Your task to perform on an android device: Open calendar and show me the first week of next month Image 0: 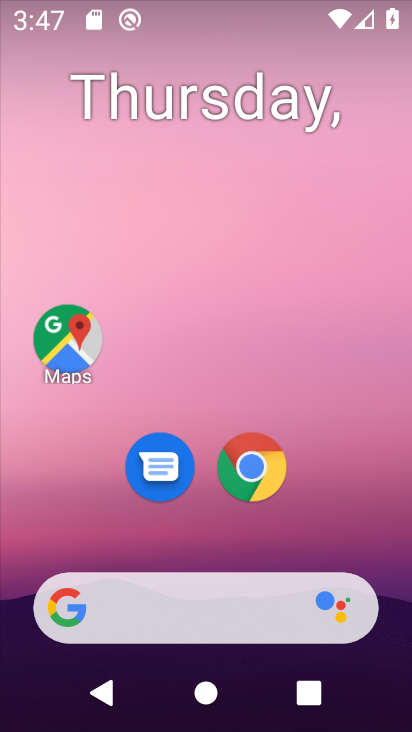
Step 0: drag from (276, 482) to (360, 81)
Your task to perform on an android device: Open calendar and show me the first week of next month Image 1: 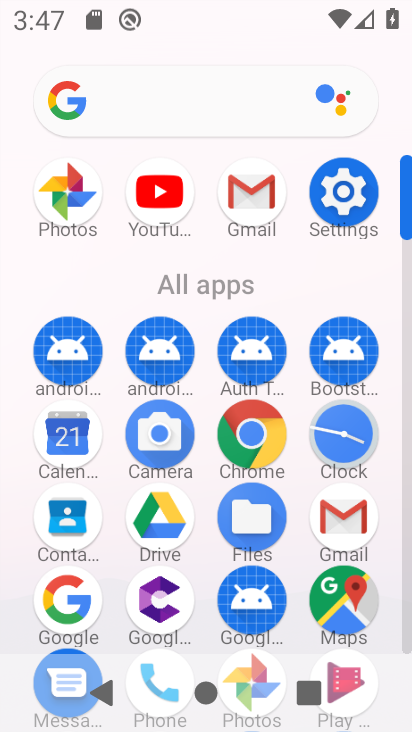
Step 1: drag from (212, 607) to (249, 353)
Your task to perform on an android device: Open calendar and show me the first week of next month Image 2: 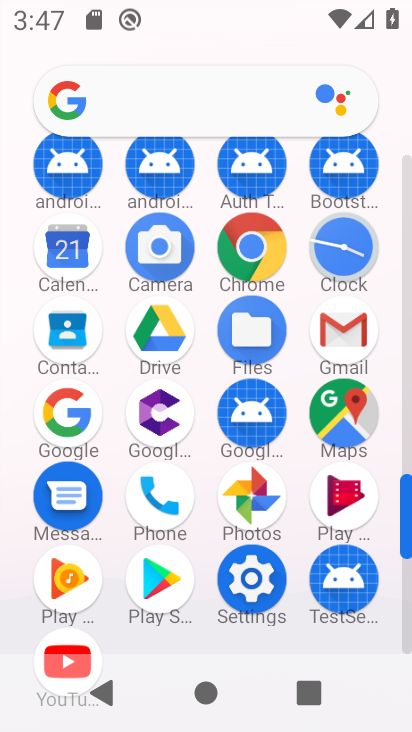
Step 2: click (67, 266)
Your task to perform on an android device: Open calendar and show me the first week of next month Image 3: 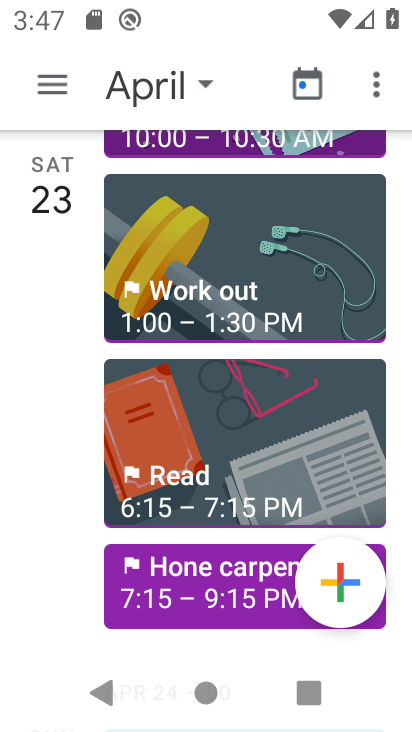
Step 3: click (42, 80)
Your task to perform on an android device: Open calendar and show me the first week of next month Image 4: 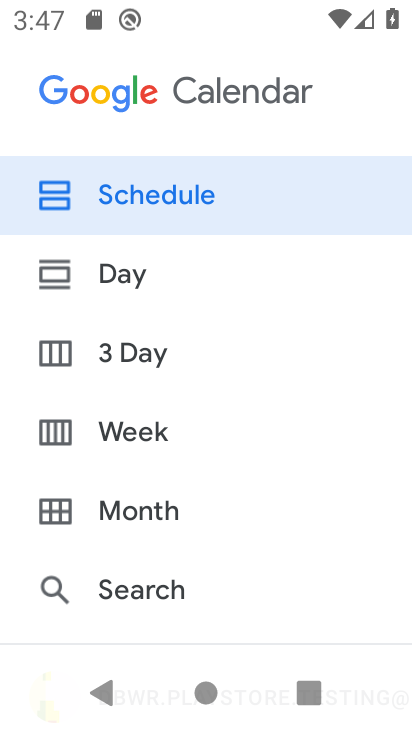
Step 4: click (152, 445)
Your task to perform on an android device: Open calendar and show me the first week of next month Image 5: 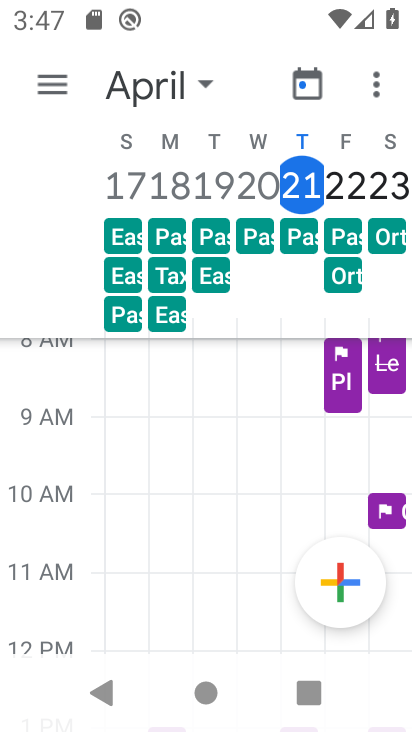
Step 5: task complete